Your task to perform on an android device: Clear all items from cart on amazon.com. Search for "logitech g910" on amazon.com, select the first entry, and add it to the cart. Image 0: 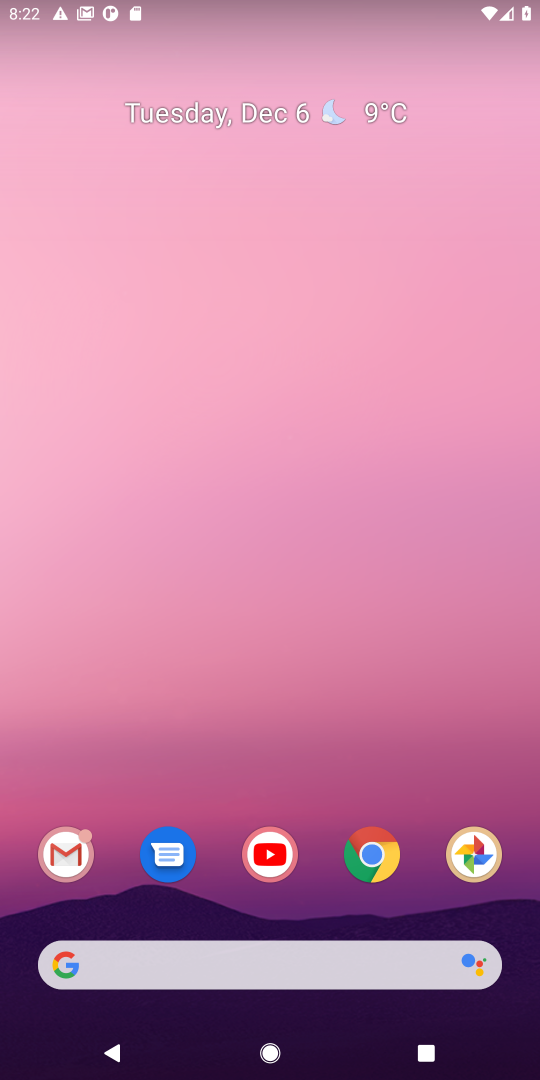
Step 0: click (365, 847)
Your task to perform on an android device: Clear all items from cart on amazon.com. Search for "logitech g910" on amazon.com, select the first entry, and add it to the cart. Image 1: 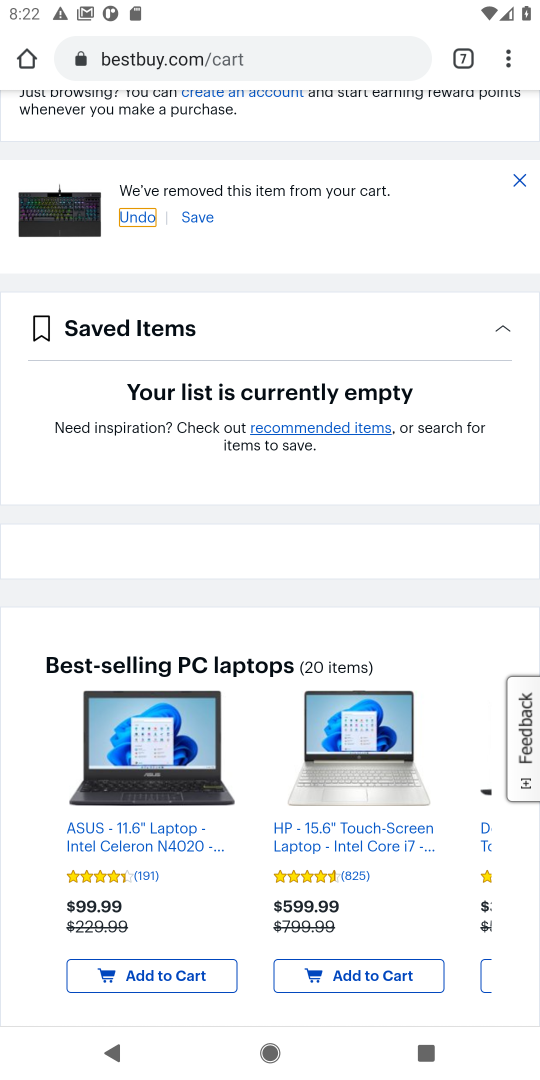
Step 1: click (467, 54)
Your task to perform on an android device: Clear all items from cart on amazon.com. Search for "logitech g910" on amazon.com, select the first entry, and add it to the cart. Image 2: 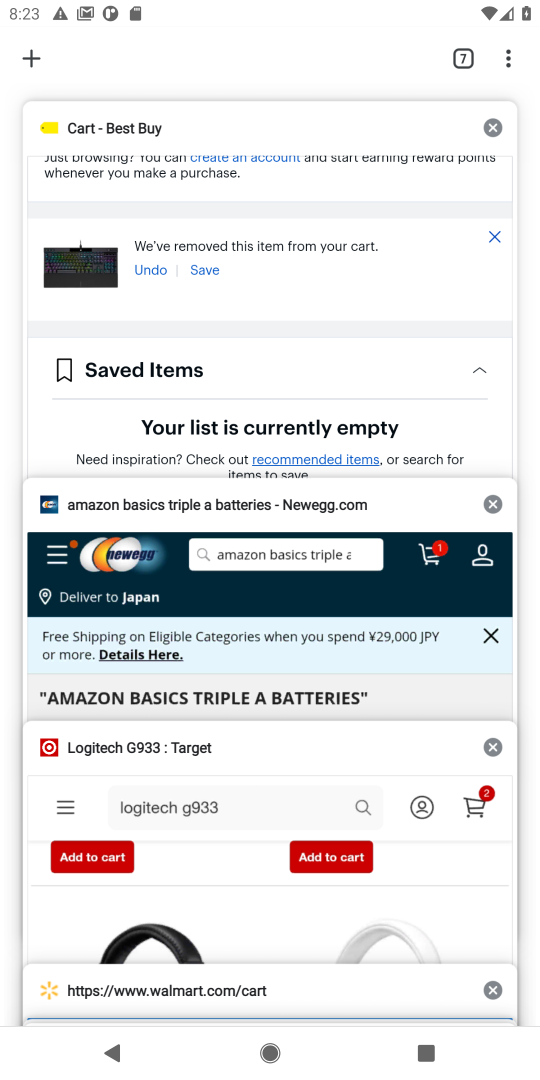
Step 2: drag from (296, 837) to (295, 623)
Your task to perform on an android device: Clear all items from cart on amazon.com. Search for "logitech g910" on amazon.com, select the first entry, and add it to the cart. Image 3: 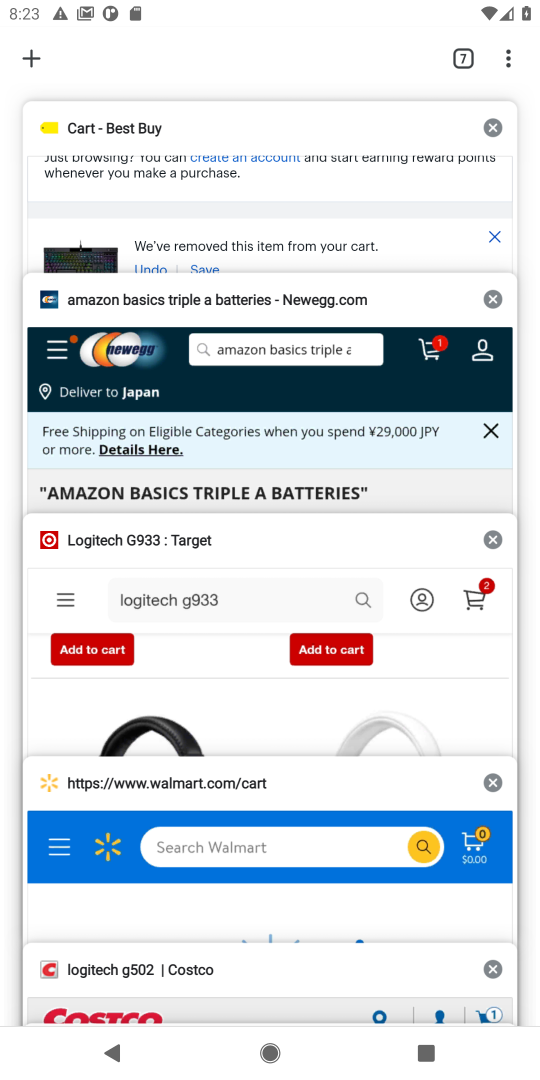
Step 3: drag from (309, 953) to (363, 635)
Your task to perform on an android device: Clear all items from cart on amazon.com. Search for "logitech g910" on amazon.com, select the first entry, and add it to the cart. Image 4: 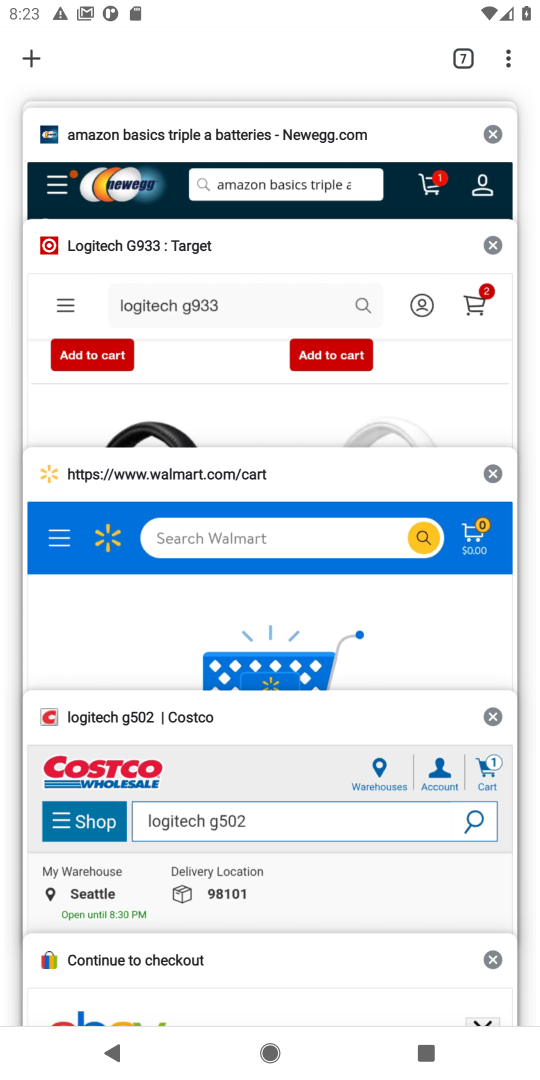
Step 4: drag from (293, 988) to (365, 684)
Your task to perform on an android device: Clear all items from cart on amazon.com. Search for "logitech g910" on amazon.com, select the first entry, and add it to the cart. Image 5: 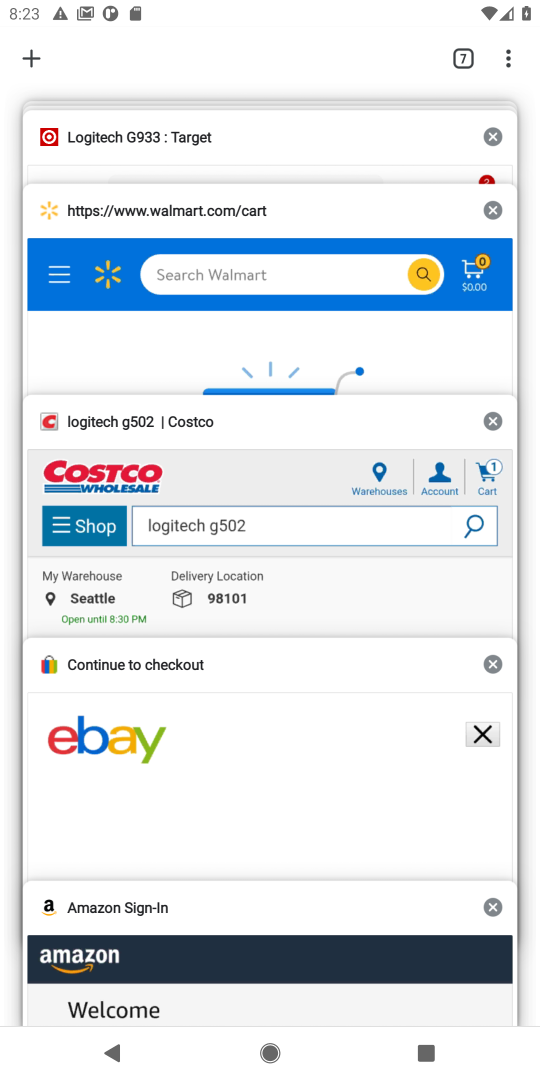
Step 5: click (333, 955)
Your task to perform on an android device: Clear all items from cart on amazon.com. Search for "logitech g910" on amazon.com, select the first entry, and add it to the cart. Image 6: 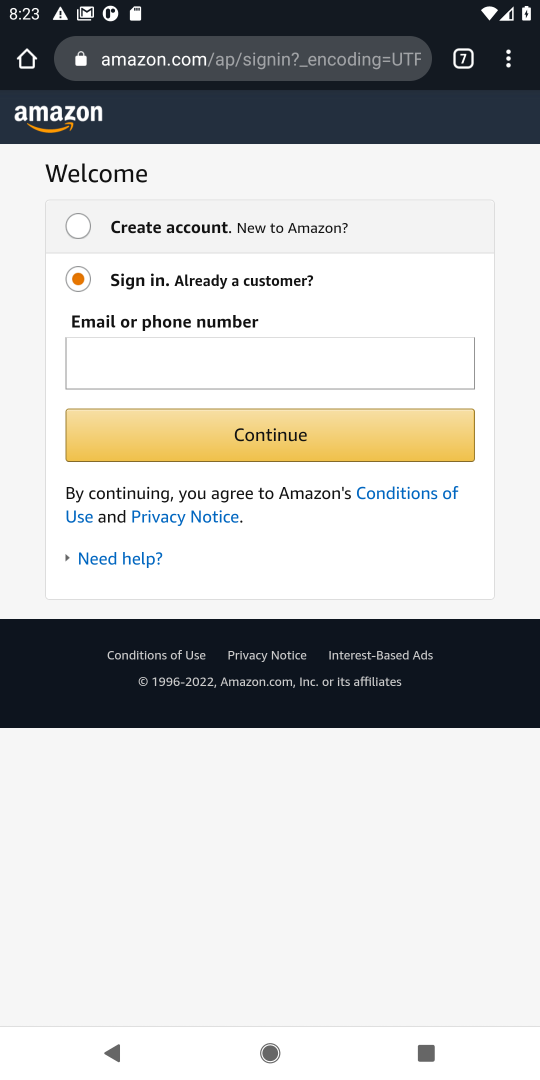
Step 6: press back button
Your task to perform on an android device: Clear all items from cart on amazon.com. Search for "logitech g910" on amazon.com, select the first entry, and add it to the cart. Image 7: 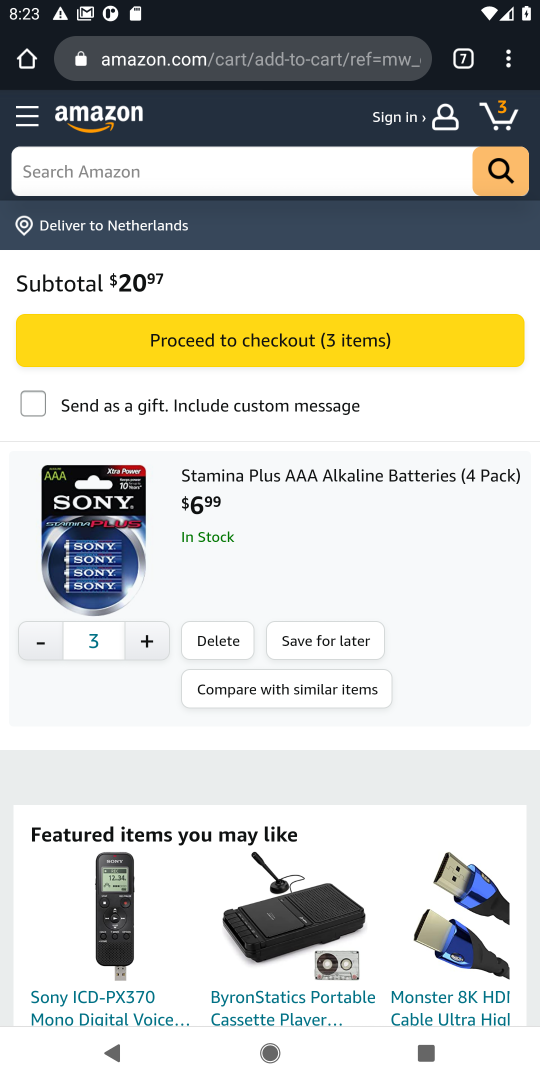
Step 7: click (207, 649)
Your task to perform on an android device: Clear all items from cart on amazon.com. Search for "logitech g910" on amazon.com, select the first entry, and add it to the cart. Image 8: 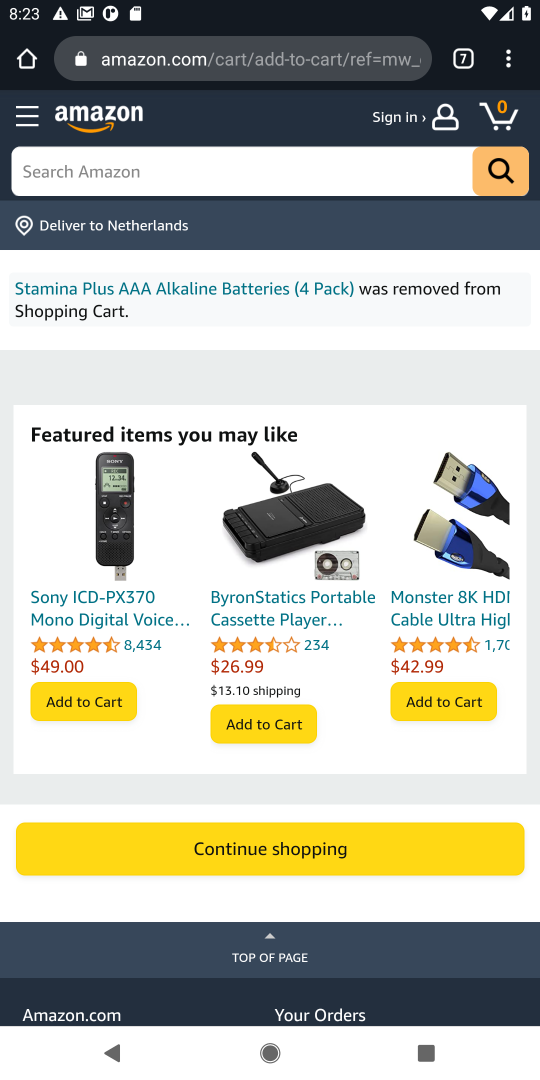
Step 8: click (207, 649)
Your task to perform on an android device: Clear all items from cart on amazon.com. Search for "logitech g910" on amazon.com, select the first entry, and add it to the cart. Image 9: 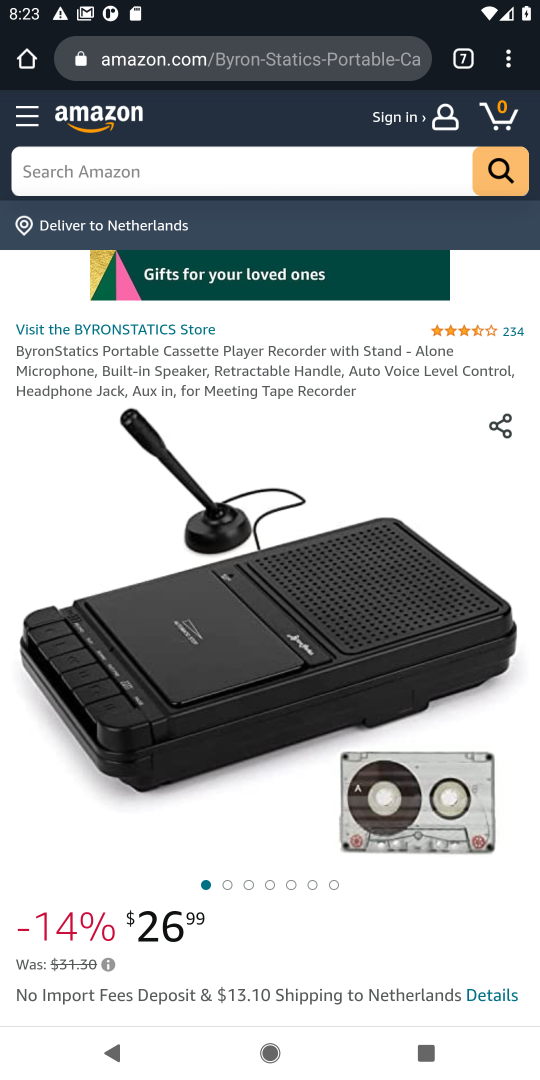
Step 9: click (201, 170)
Your task to perform on an android device: Clear all items from cart on amazon.com. Search for "logitech g910" on amazon.com, select the first entry, and add it to the cart. Image 10: 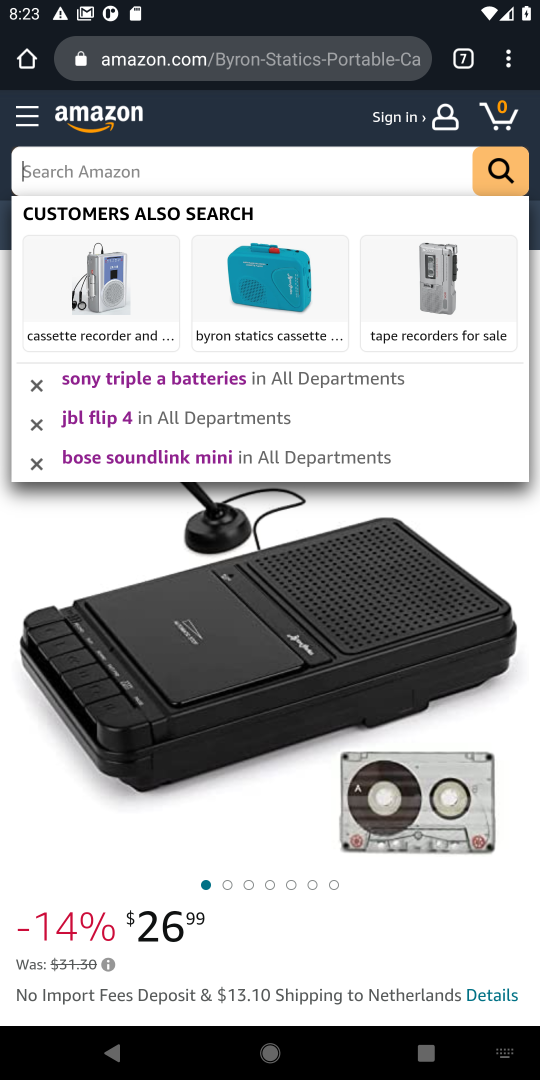
Step 10: type "logitech g910"
Your task to perform on an android device: Clear all items from cart on amazon.com. Search for "logitech g910" on amazon.com, select the first entry, and add it to the cart. Image 11: 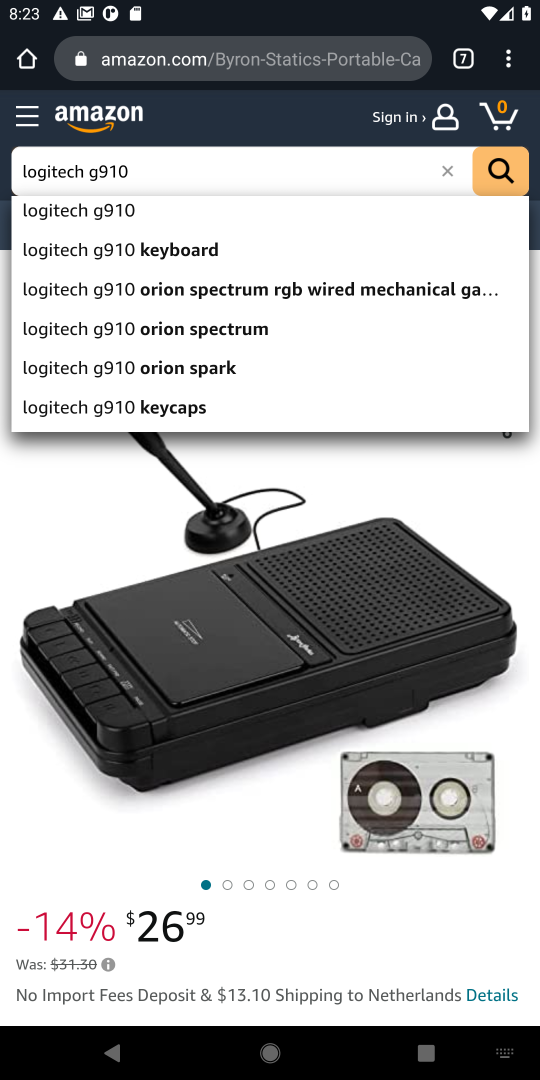
Step 11: click (92, 213)
Your task to perform on an android device: Clear all items from cart on amazon.com. Search for "logitech g910" on amazon.com, select the first entry, and add it to the cart. Image 12: 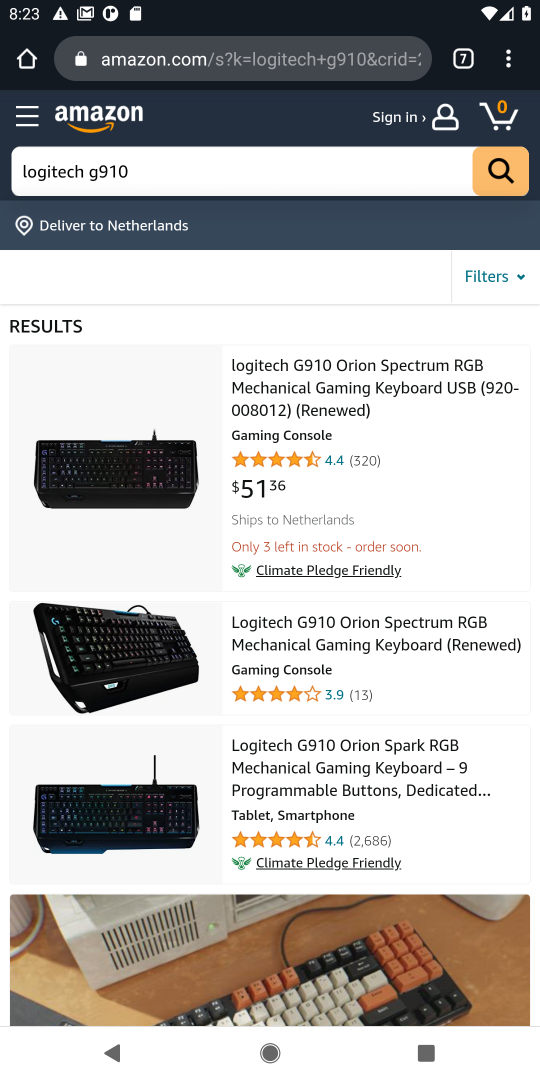
Step 12: click (343, 384)
Your task to perform on an android device: Clear all items from cart on amazon.com. Search for "logitech g910" on amazon.com, select the first entry, and add it to the cart. Image 13: 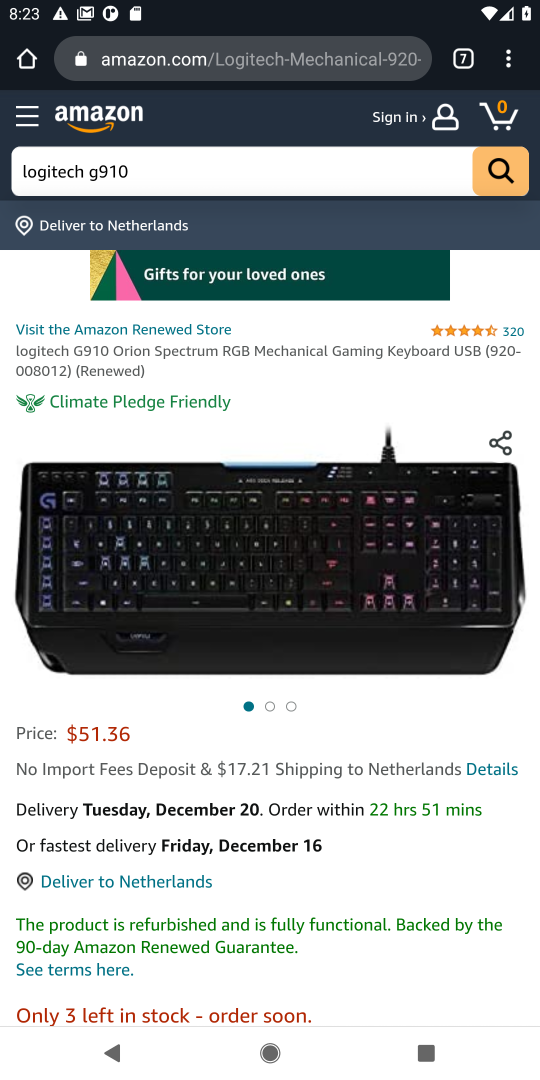
Step 13: drag from (451, 873) to (432, 340)
Your task to perform on an android device: Clear all items from cart on amazon.com. Search for "logitech g910" on amazon.com, select the first entry, and add it to the cart. Image 14: 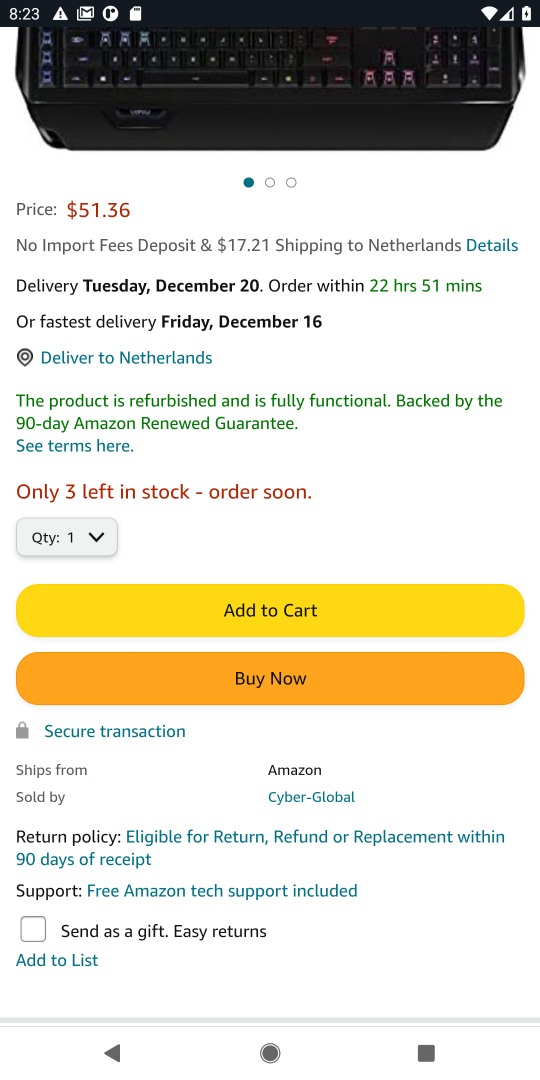
Step 14: click (273, 611)
Your task to perform on an android device: Clear all items from cart on amazon.com. Search for "logitech g910" on amazon.com, select the first entry, and add it to the cart. Image 15: 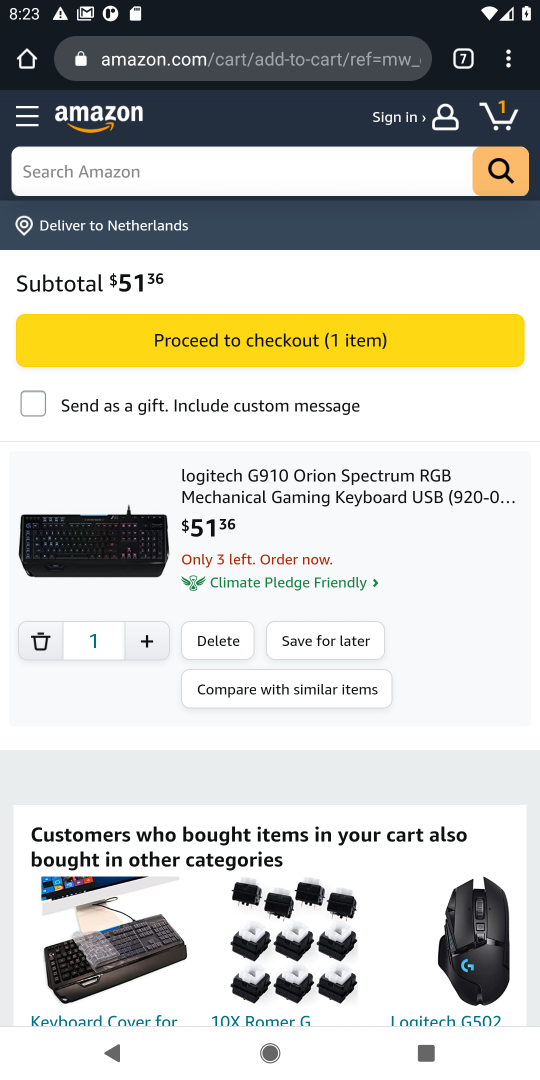
Step 15: task complete